Your task to perform on an android device: change keyboard looks Image 0: 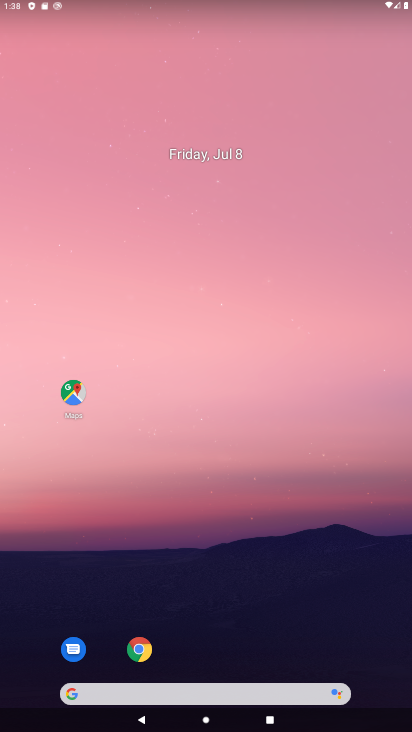
Step 0: drag from (274, 628) to (178, 93)
Your task to perform on an android device: change keyboard looks Image 1: 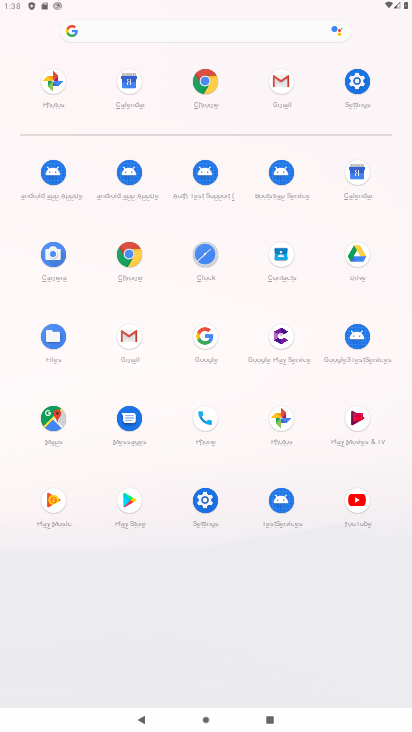
Step 1: click (355, 83)
Your task to perform on an android device: change keyboard looks Image 2: 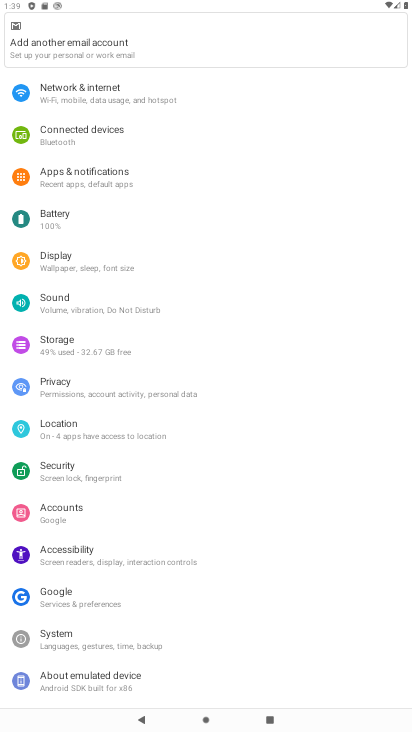
Step 2: drag from (157, 556) to (167, 229)
Your task to perform on an android device: change keyboard looks Image 3: 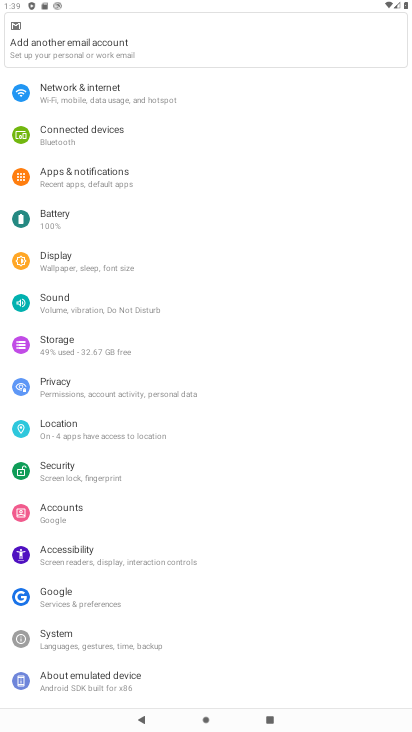
Step 3: click (64, 628)
Your task to perform on an android device: change keyboard looks Image 4: 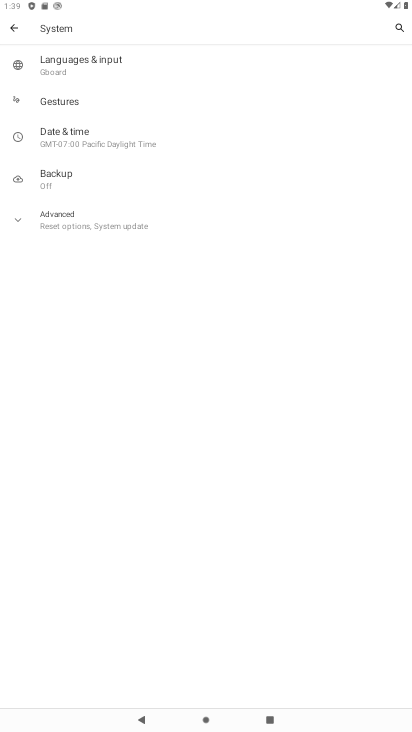
Step 4: click (55, 70)
Your task to perform on an android device: change keyboard looks Image 5: 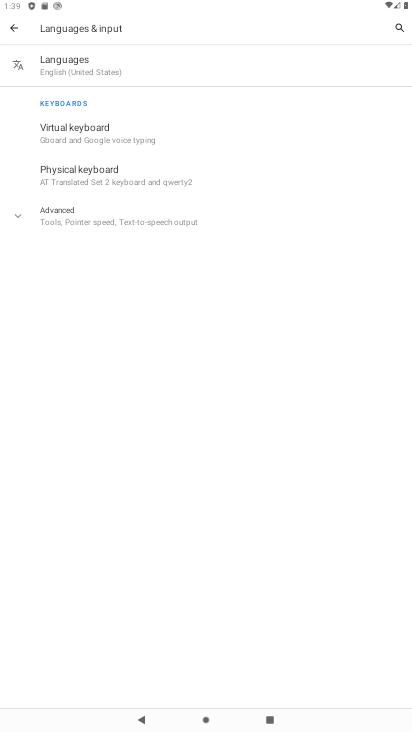
Step 5: click (78, 129)
Your task to perform on an android device: change keyboard looks Image 6: 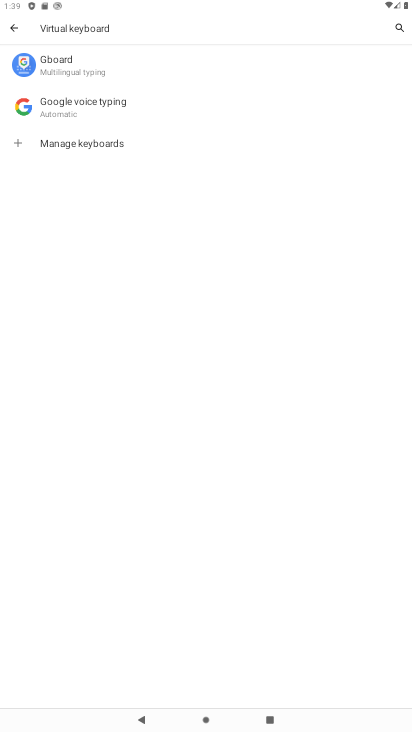
Step 6: click (69, 60)
Your task to perform on an android device: change keyboard looks Image 7: 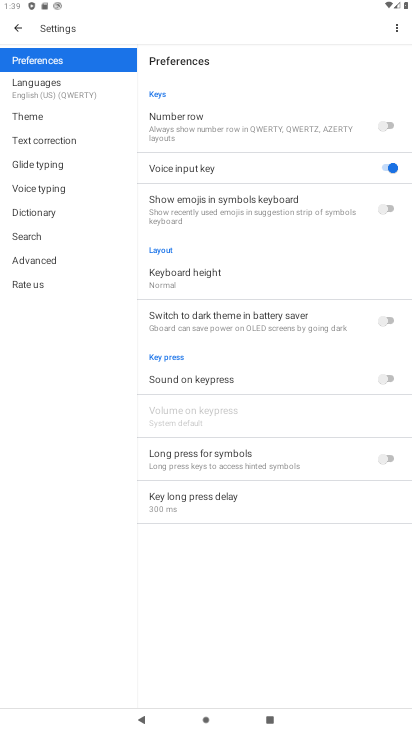
Step 7: click (41, 118)
Your task to perform on an android device: change keyboard looks Image 8: 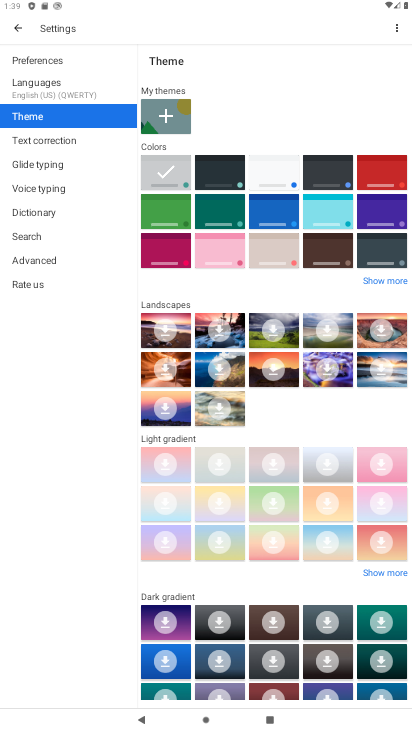
Step 8: click (280, 172)
Your task to perform on an android device: change keyboard looks Image 9: 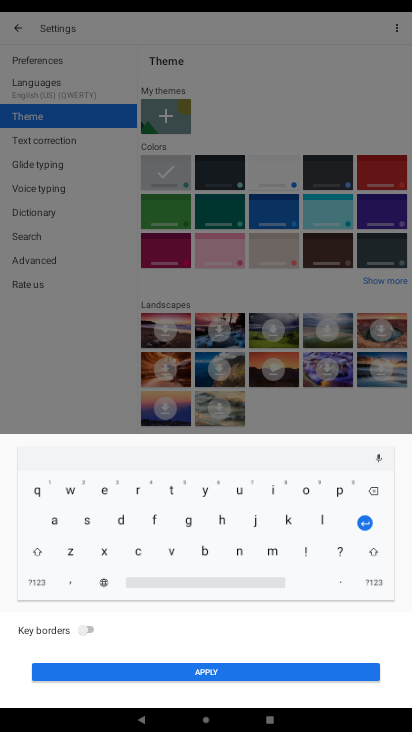
Step 9: click (266, 669)
Your task to perform on an android device: change keyboard looks Image 10: 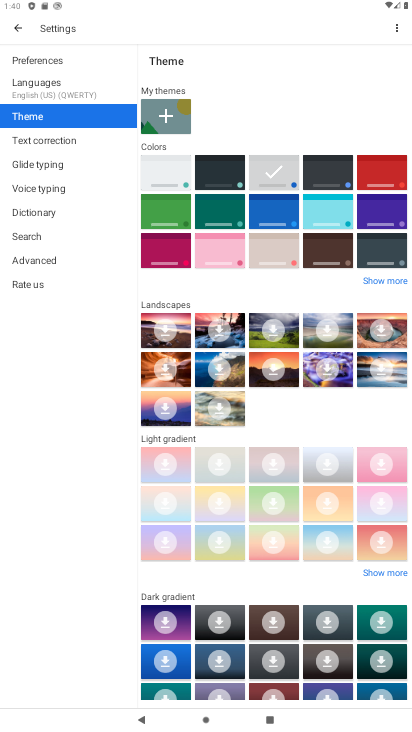
Step 10: task complete